Your task to perform on an android device: Check the weather Image 0: 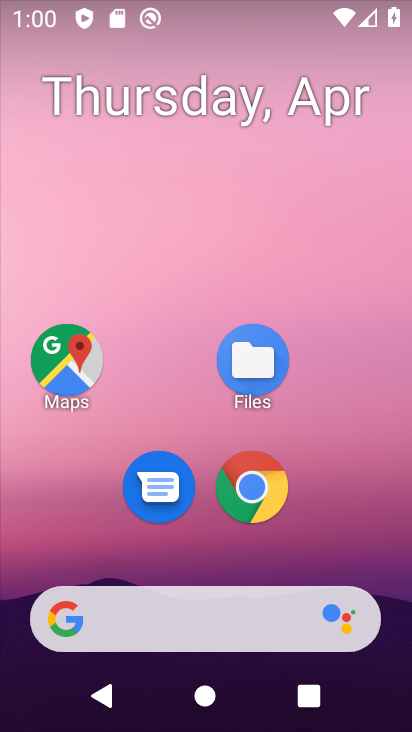
Step 0: drag from (359, 510) to (353, 197)
Your task to perform on an android device: Check the weather Image 1: 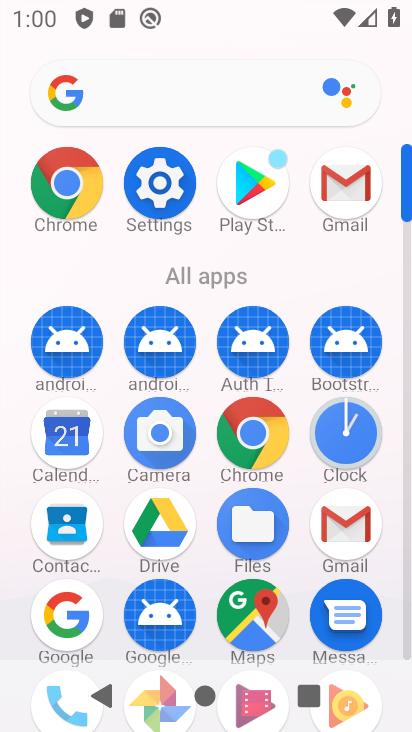
Step 1: click (66, 220)
Your task to perform on an android device: Check the weather Image 2: 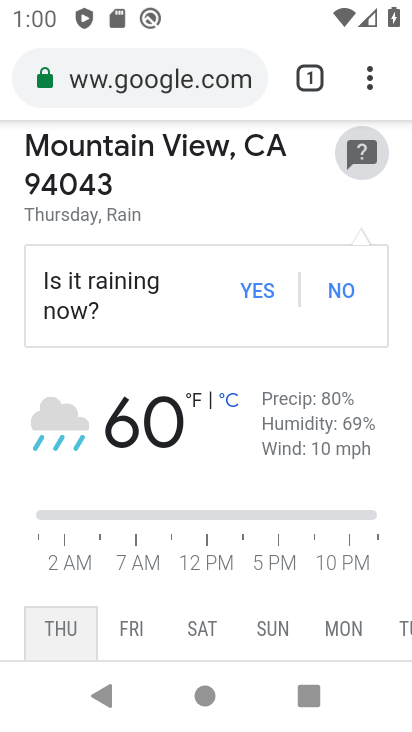
Step 2: click (168, 70)
Your task to perform on an android device: Check the weather Image 3: 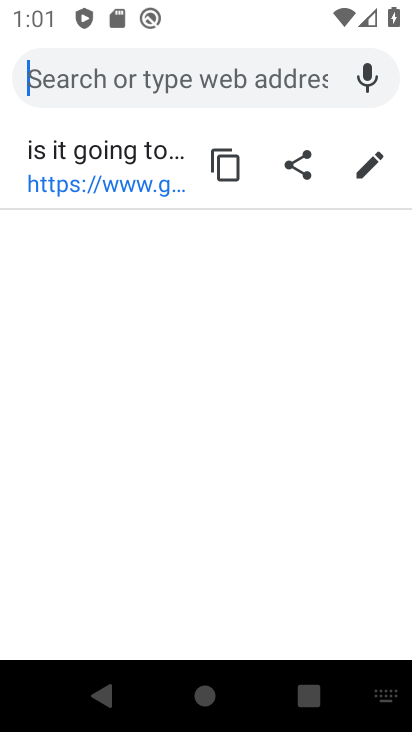
Step 3: type "check the weather"
Your task to perform on an android device: Check the weather Image 4: 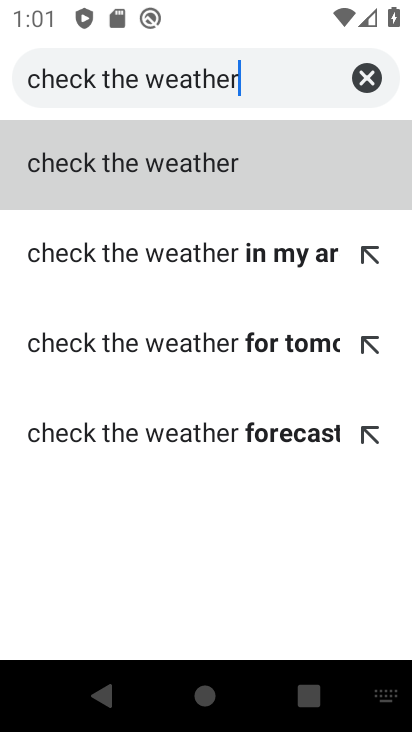
Step 4: click (117, 169)
Your task to perform on an android device: Check the weather Image 5: 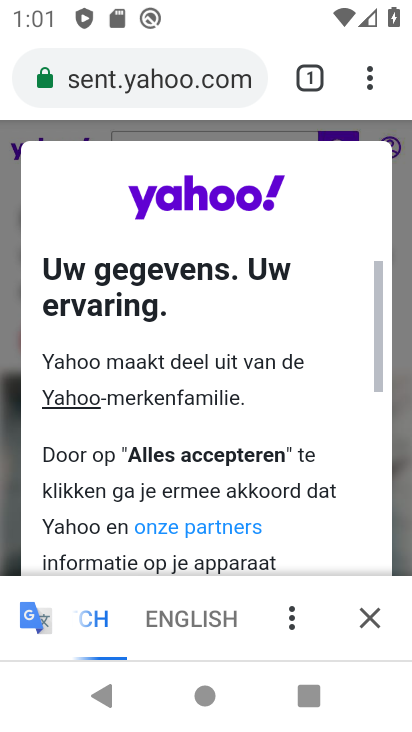
Step 5: task complete